Your task to perform on an android device: set the stopwatch Image 0: 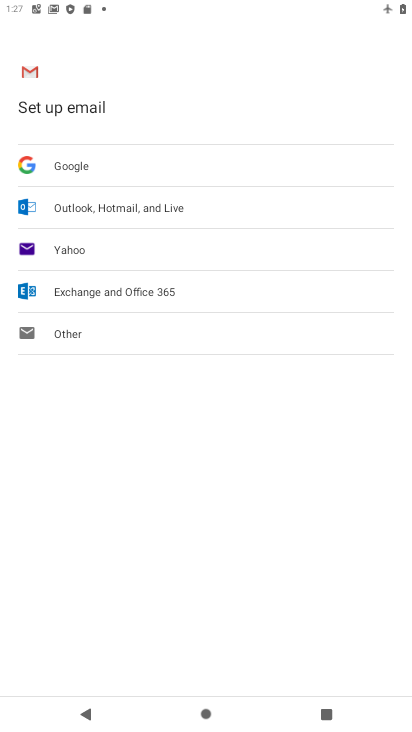
Step 0: press home button
Your task to perform on an android device: set the stopwatch Image 1: 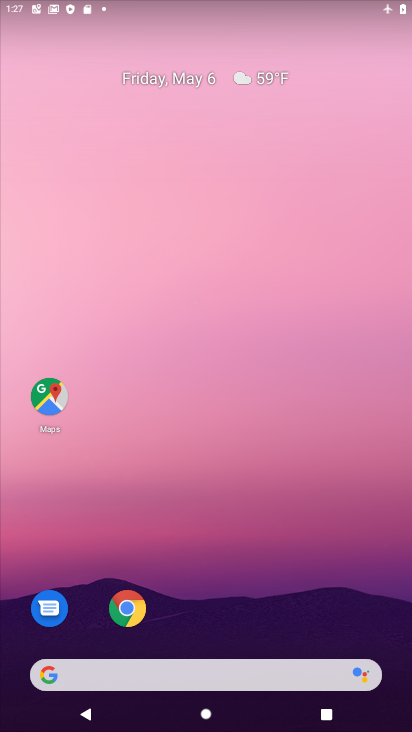
Step 1: drag from (189, 616) to (263, 165)
Your task to perform on an android device: set the stopwatch Image 2: 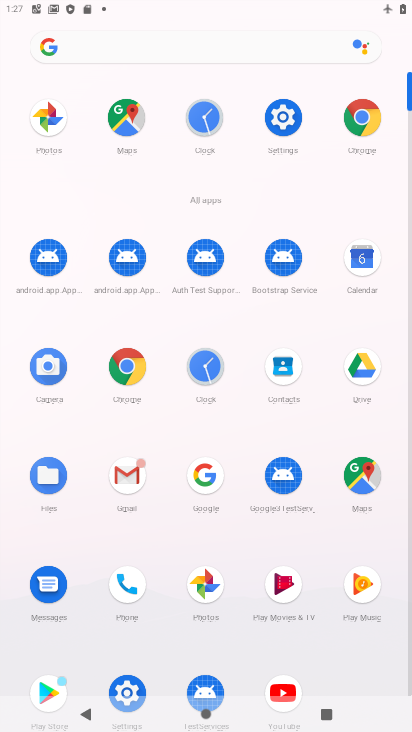
Step 2: click (205, 367)
Your task to perform on an android device: set the stopwatch Image 3: 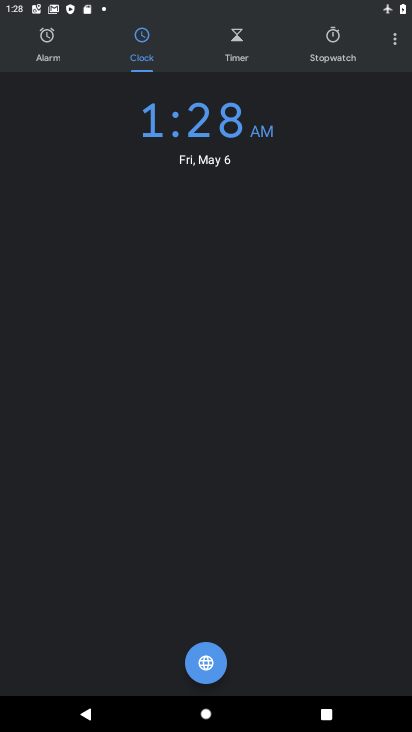
Step 3: click (323, 54)
Your task to perform on an android device: set the stopwatch Image 4: 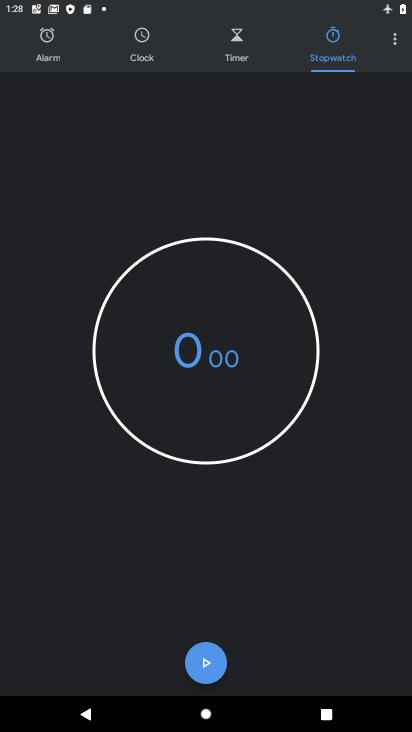
Step 4: click (195, 353)
Your task to perform on an android device: set the stopwatch Image 5: 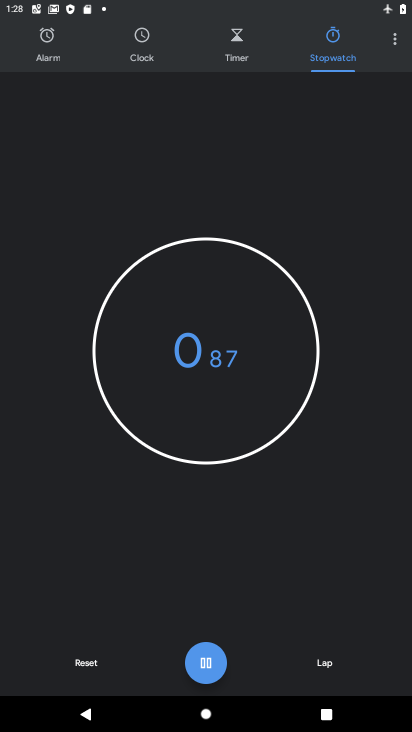
Step 5: task complete